Your task to perform on an android device: Open Android settings Image 0: 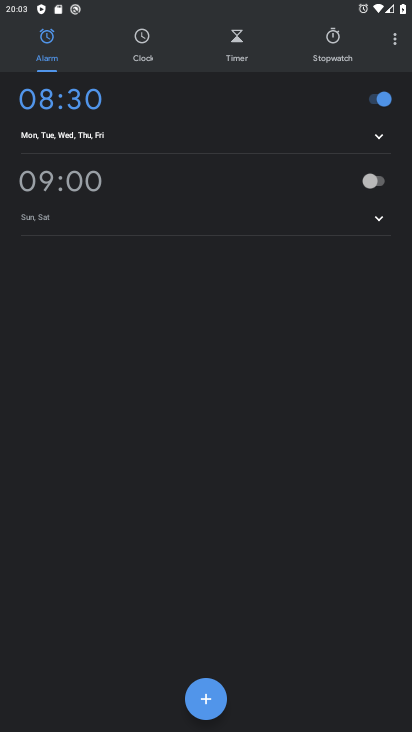
Step 0: press home button
Your task to perform on an android device: Open Android settings Image 1: 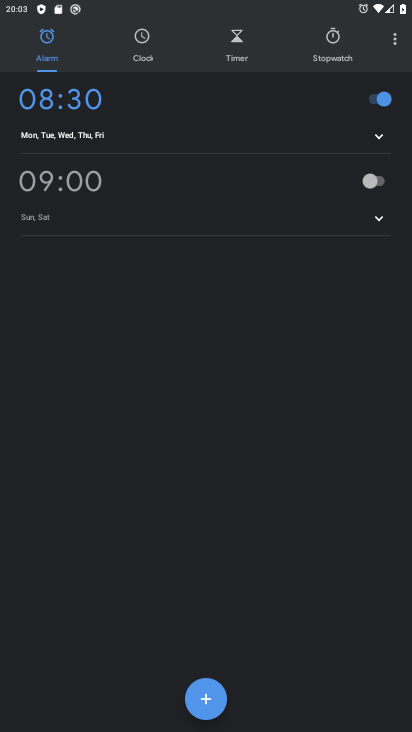
Step 1: drag from (181, 540) to (275, 80)
Your task to perform on an android device: Open Android settings Image 2: 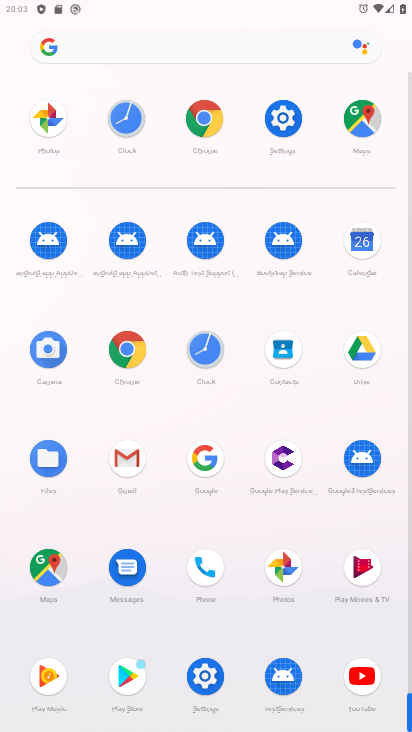
Step 2: click (284, 123)
Your task to perform on an android device: Open Android settings Image 3: 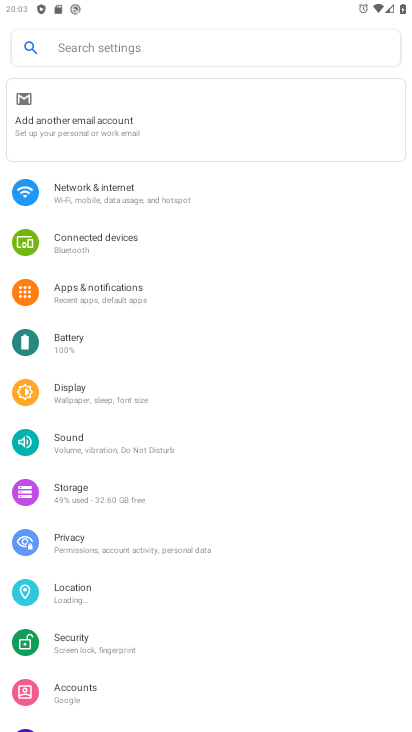
Step 3: drag from (179, 599) to (231, 204)
Your task to perform on an android device: Open Android settings Image 4: 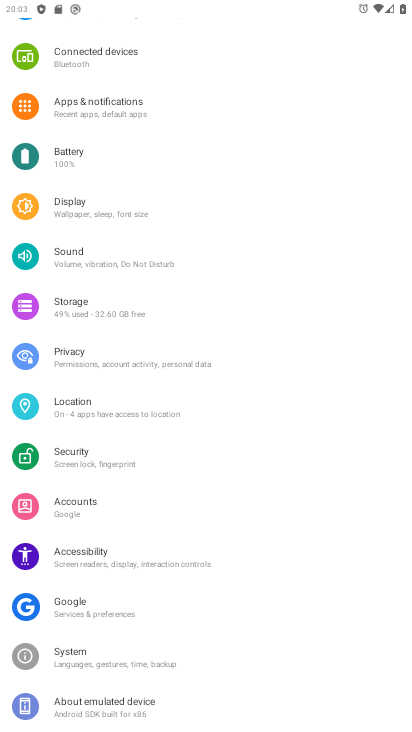
Step 4: click (150, 703)
Your task to perform on an android device: Open Android settings Image 5: 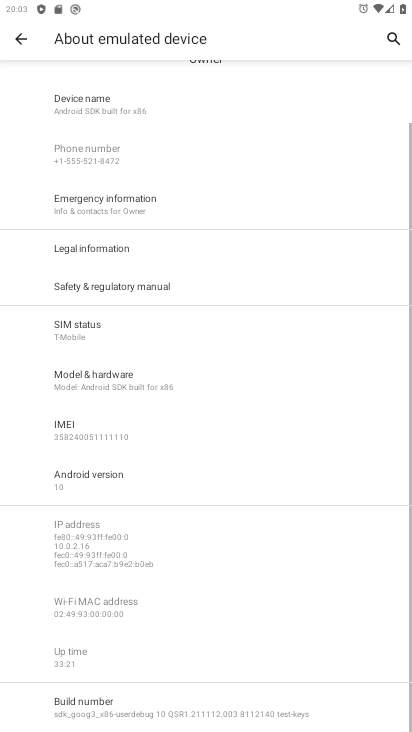
Step 5: click (110, 487)
Your task to perform on an android device: Open Android settings Image 6: 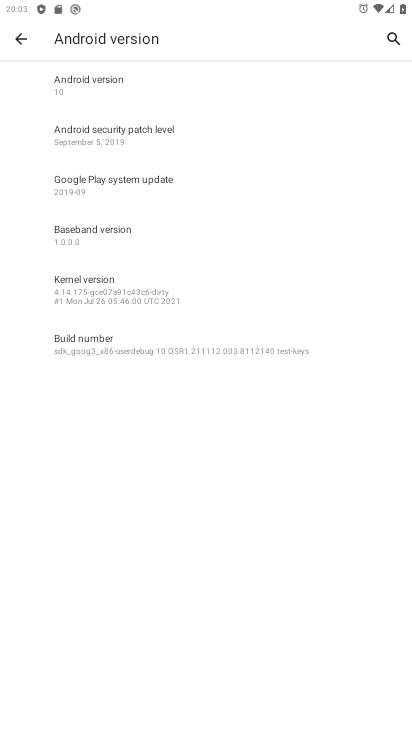
Step 6: click (174, 79)
Your task to perform on an android device: Open Android settings Image 7: 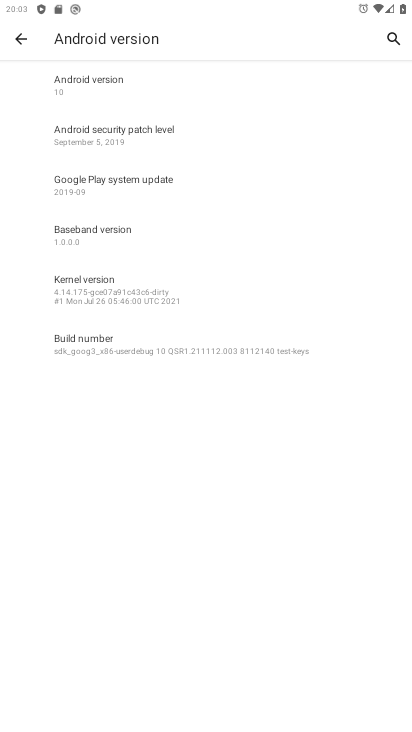
Step 7: task complete